Your task to perform on an android device: Open privacy settings Image 0: 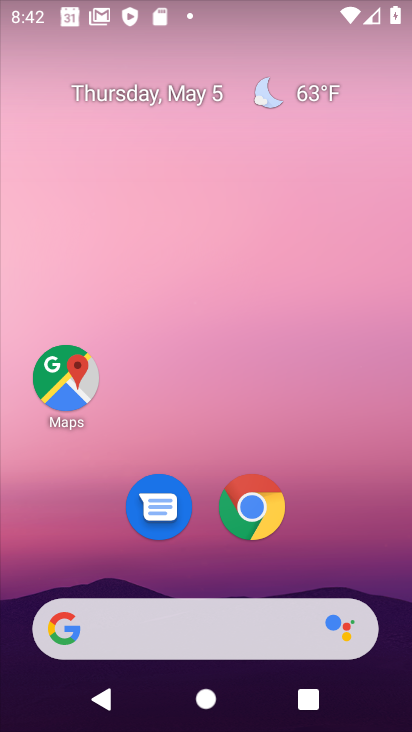
Step 0: drag from (297, 476) to (300, 0)
Your task to perform on an android device: Open privacy settings Image 1: 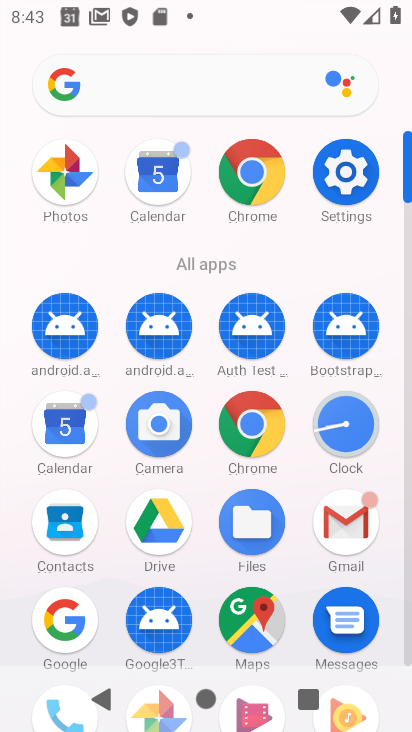
Step 1: drag from (248, 383) to (222, 17)
Your task to perform on an android device: Open privacy settings Image 2: 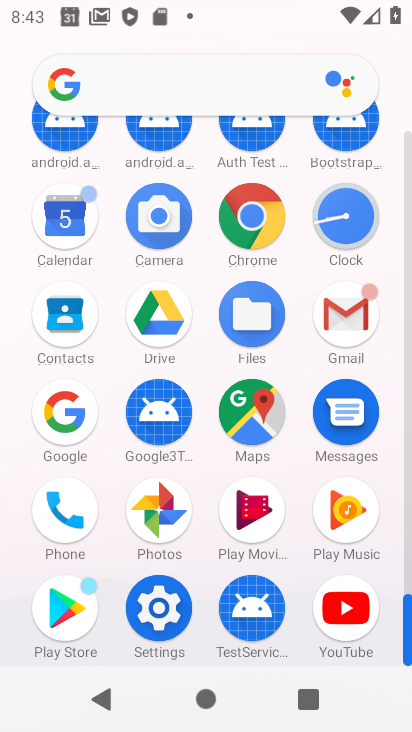
Step 2: click (169, 604)
Your task to perform on an android device: Open privacy settings Image 3: 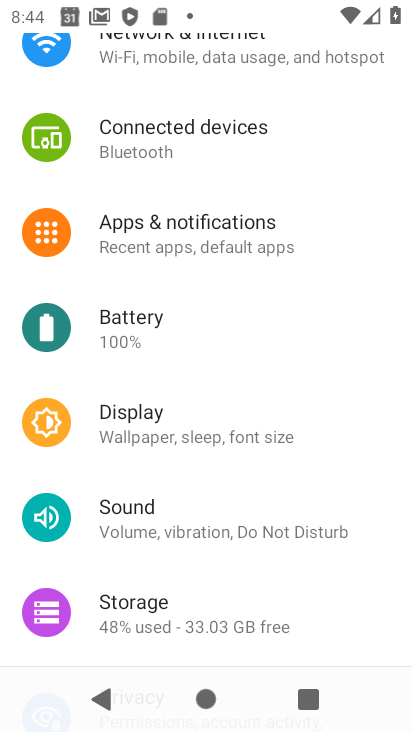
Step 3: drag from (167, 533) to (179, 114)
Your task to perform on an android device: Open privacy settings Image 4: 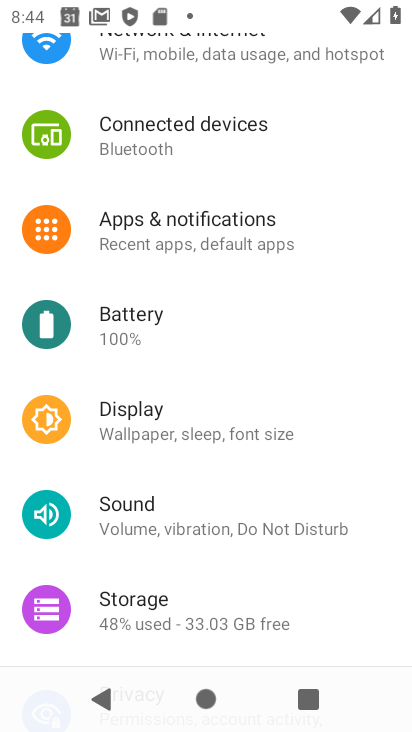
Step 4: drag from (279, 406) to (281, 20)
Your task to perform on an android device: Open privacy settings Image 5: 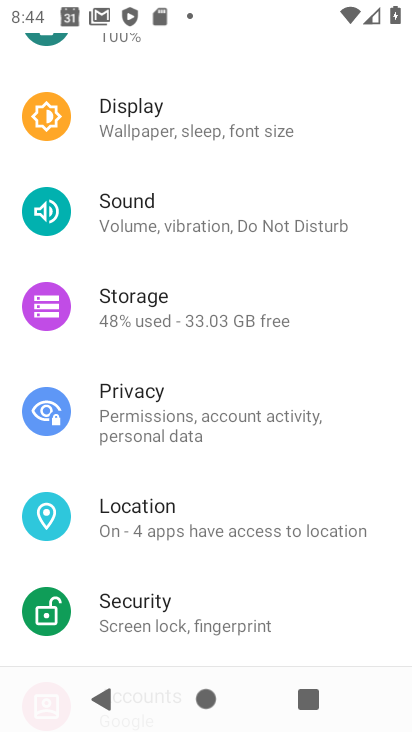
Step 5: drag from (143, 614) to (182, 227)
Your task to perform on an android device: Open privacy settings Image 6: 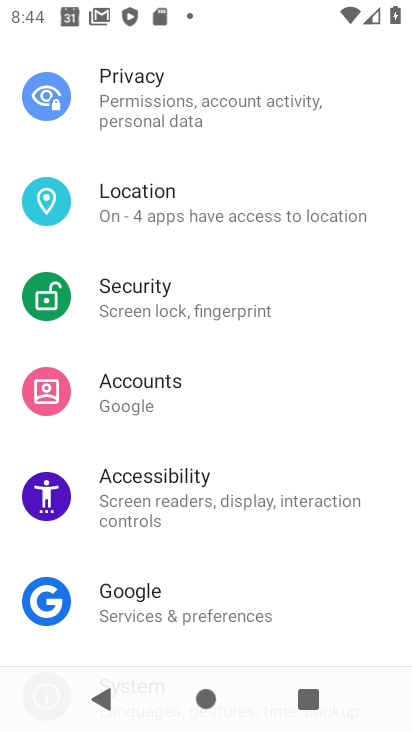
Step 6: click (170, 111)
Your task to perform on an android device: Open privacy settings Image 7: 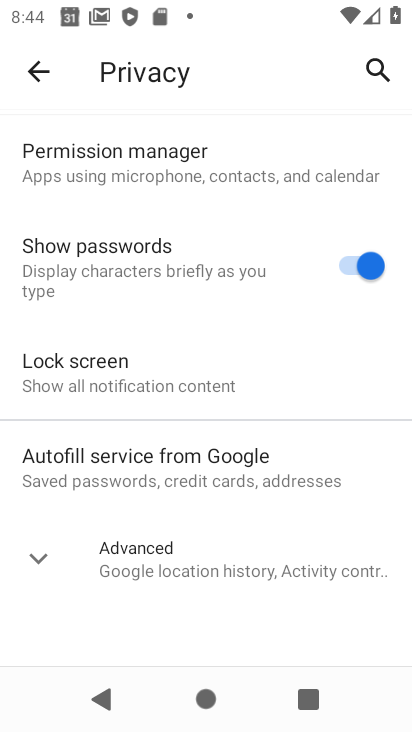
Step 7: task complete